Your task to perform on an android device: add a contact Image 0: 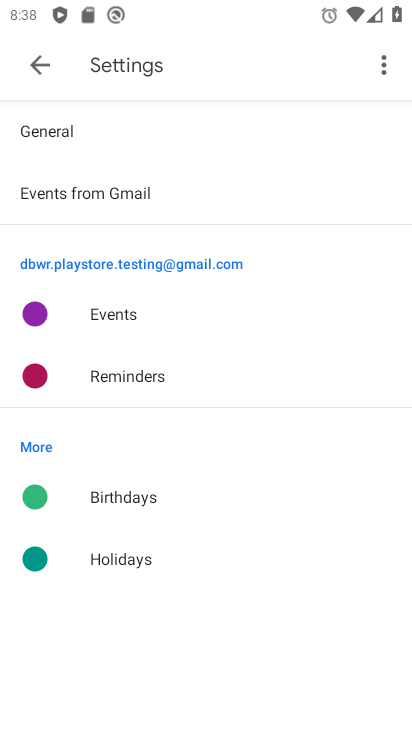
Step 0: press home button
Your task to perform on an android device: add a contact Image 1: 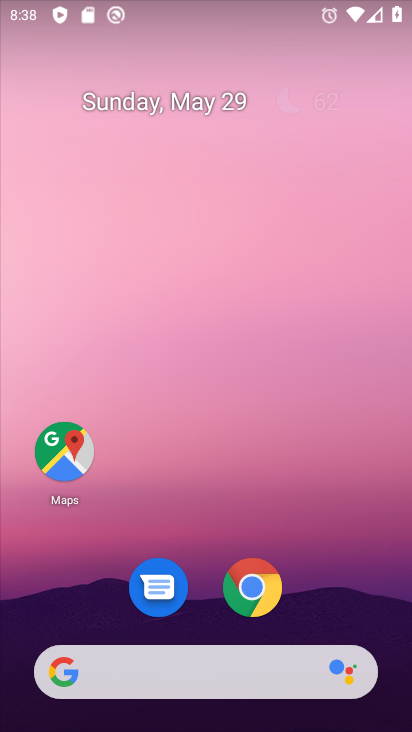
Step 1: drag from (200, 621) to (174, 188)
Your task to perform on an android device: add a contact Image 2: 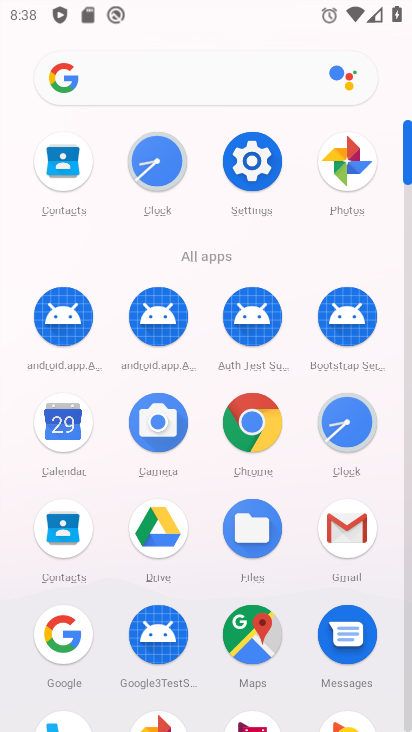
Step 2: click (64, 520)
Your task to perform on an android device: add a contact Image 3: 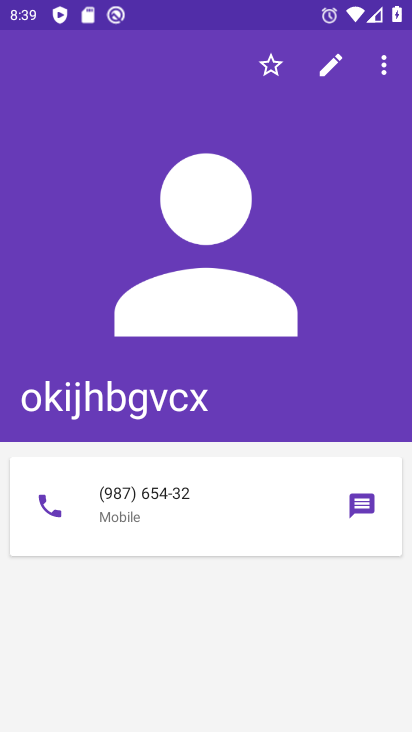
Step 3: press back button
Your task to perform on an android device: add a contact Image 4: 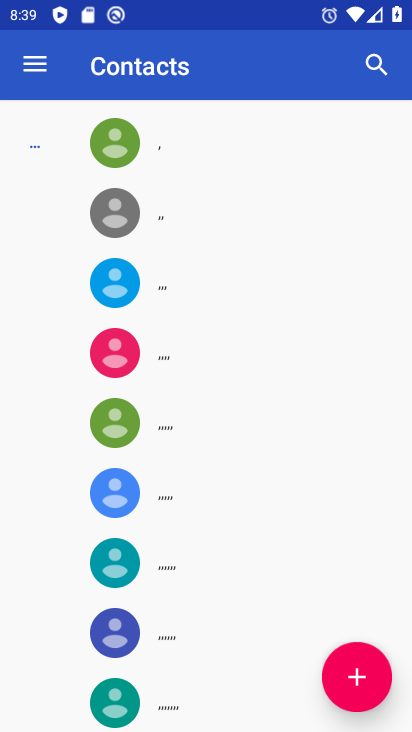
Step 4: click (363, 664)
Your task to perform on an android device: add a contact Image 5: 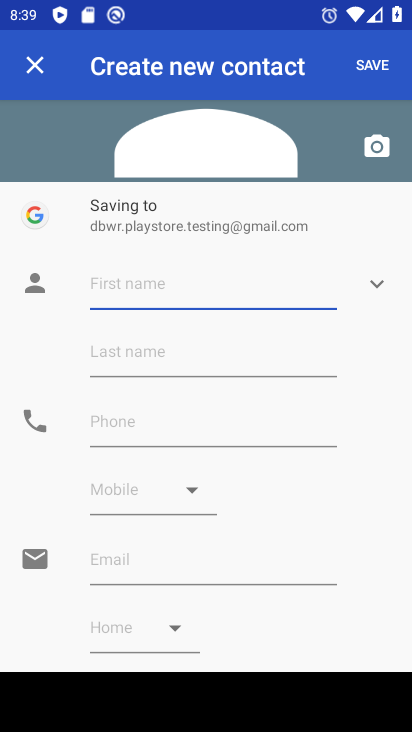
Step 5: type "oikjnhbv"
Your task to perform on an android device: add a contact Image 6: 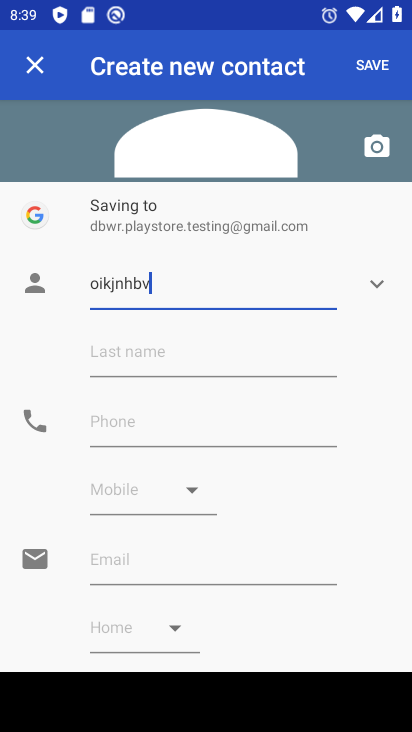
Step 6: click (148, 421)
Your task to perform on an android device: add a contact Image 7: 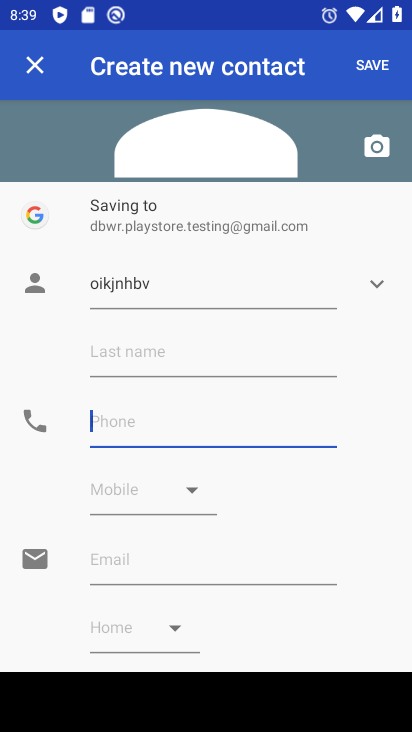
Step 7: type "8765r4e"
Your task to perform on an android device: add a contact Image 8: 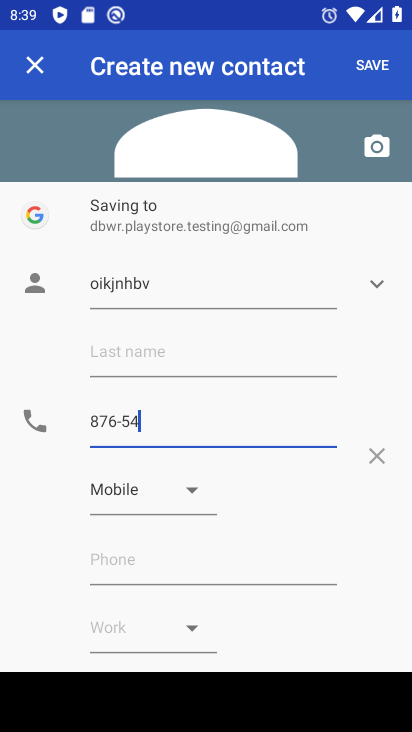
Step 8: click (388, 68)
Your task to perform on an android device: add a contact Image 9: 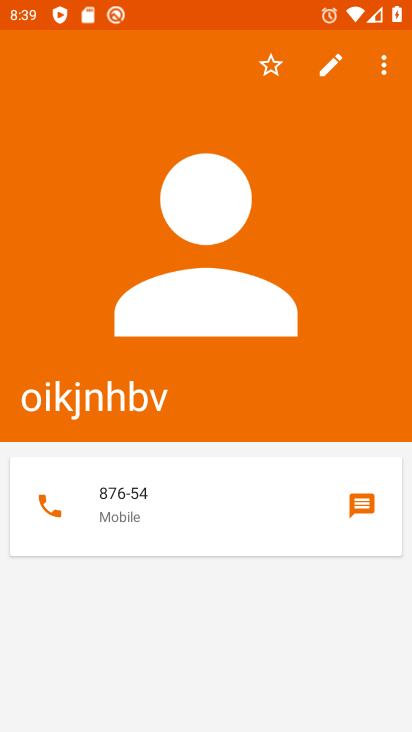
Step 9: task complete